Your task to perform on an android device: turn on the 12-hour format for clock Image 0: 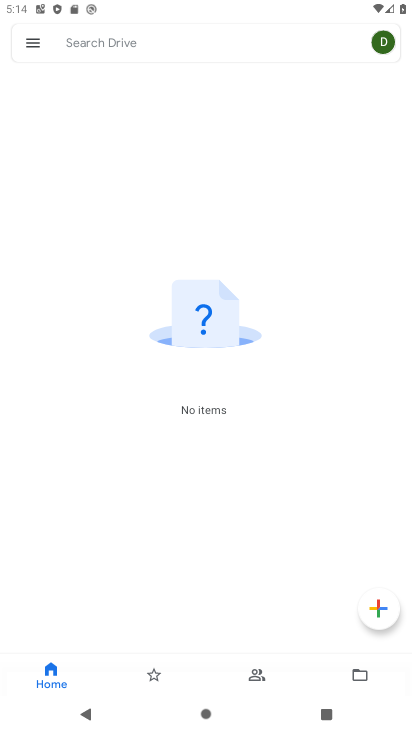
Step 0: press home button
Your task to perform on an android device: turn on the 12-hour format for clock Image 1: 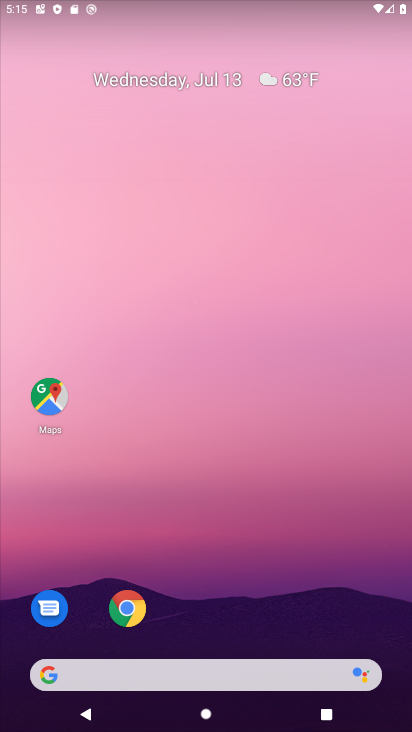
Step 1: task complete